Your task to perform on an android device: Open Google Chrome and click the shortcut for Amazon.com Image 0: 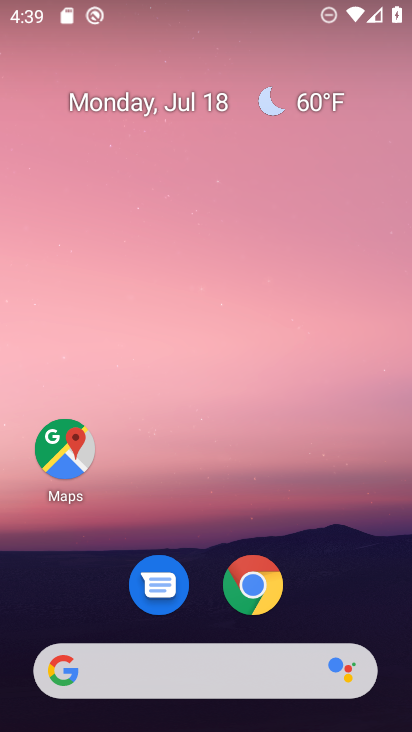
Step 0: drag from (232, 488) to (291, 85)
Your task to perform on an android device: Open Google Chrome and click the shortcut for Amazon.com Image 1: 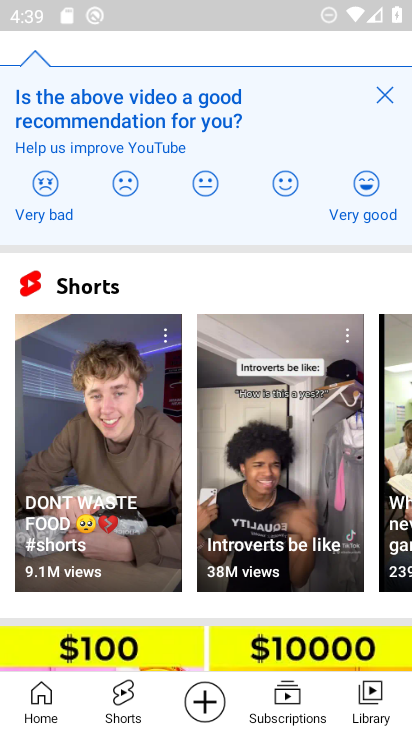
Step 1: press home button
Your task to perform on an android device: Open Google Chrome and click the shortcut for Amazon.com Image 2: 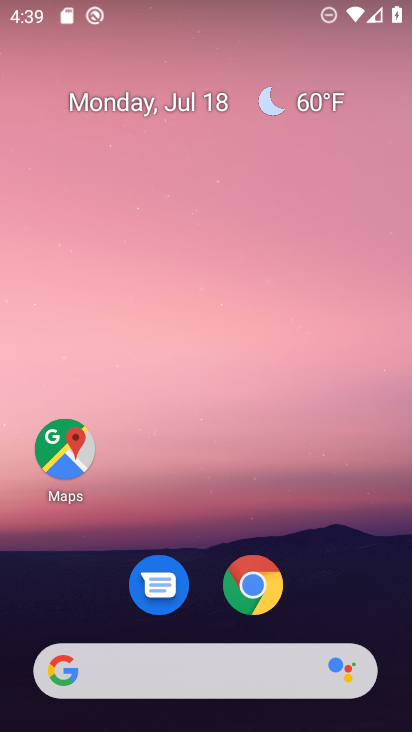
Step 2: click (270, 579)
Your task to perform on an android device: Open Google Chrome and click the shortcut for Amazon.com Image 3: 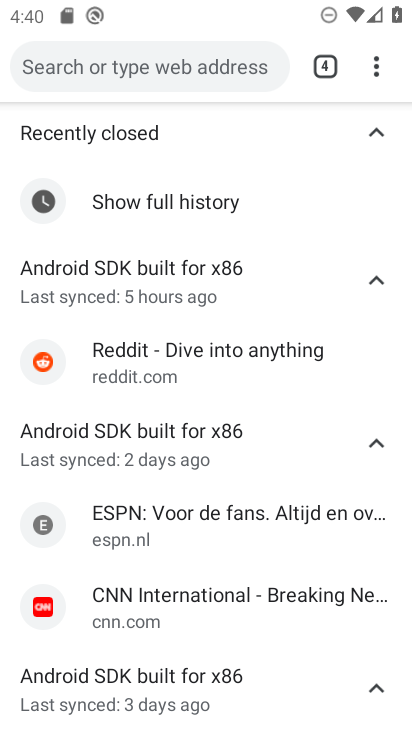
Step 3: click (372, 74)
Your task to perform on an android device: Open Google Chrome and click the shortcut for Amazon.com Image 4: 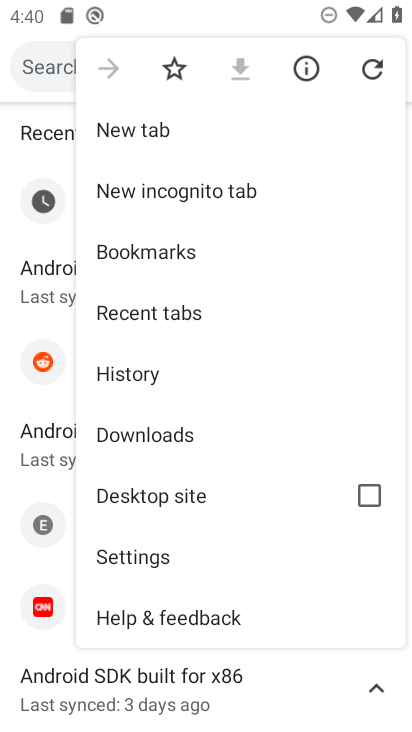
Step 4: click (322, 116)
Your task to perform on an android device: Open Google Chrome and click the shortcut for Amazon.com Image 5: 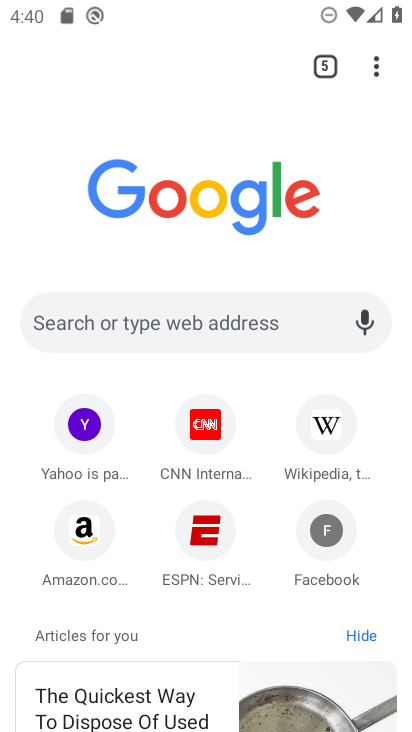
Step 5: click (86, 533)
Your task to perform on an android device: Open Google Chrome and click the shortcut for Amazon.com Image 6: 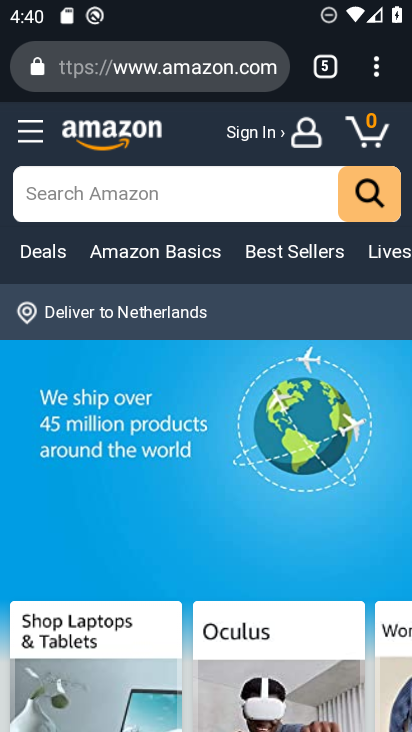
Step 6: task complete